Your task to perform on an android device: Open battery settings Image 0: 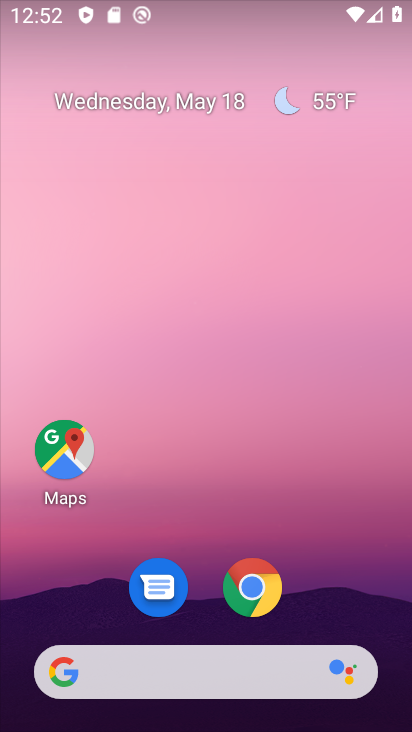
Step 0: drag from (216, 616) to (284, 79)
Your task to perform on an android device: Open battery settings Image 1: 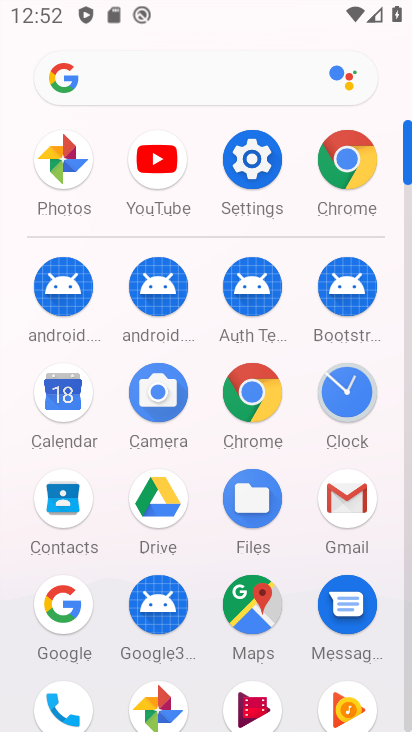
Step 1: click (258, 160)
Your task to perform on an android device: Open battery settings Image 2: 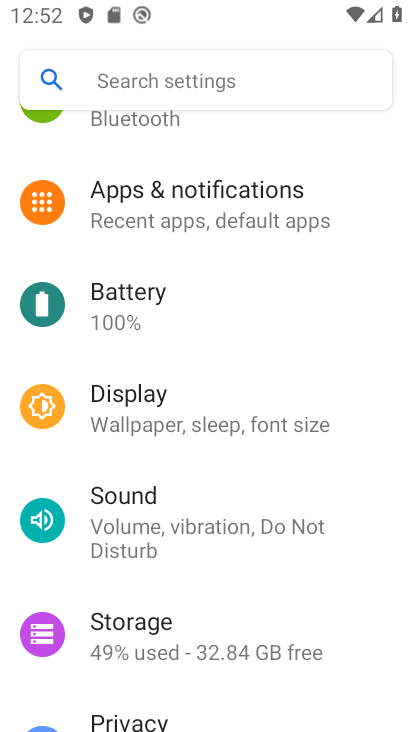
Step 2: click (135, 296)
Your task to perform on an android device: Open battery settings Image 3: 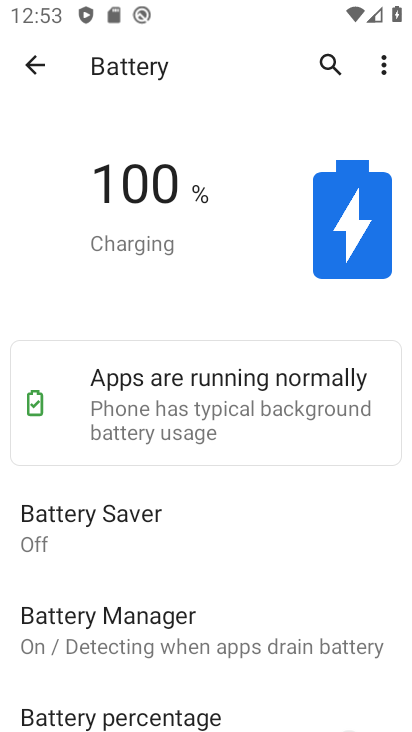
Step 3: task complete